Your task to perform on an android device: Open Google Maps Image 0: 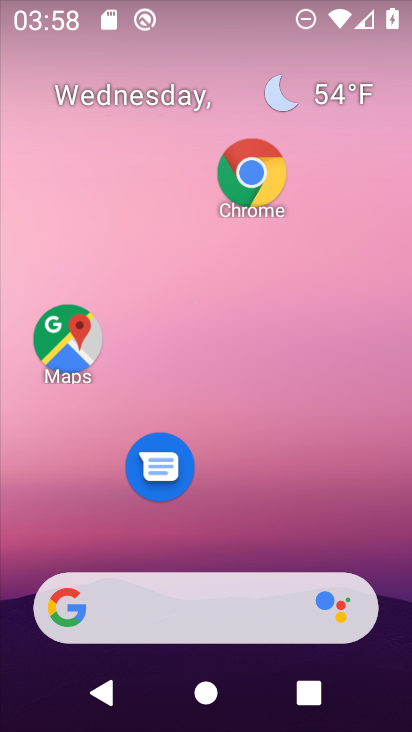
Step 0: click (52, 327)
Your task to perform on an android device: Open Google Maps Image 1: 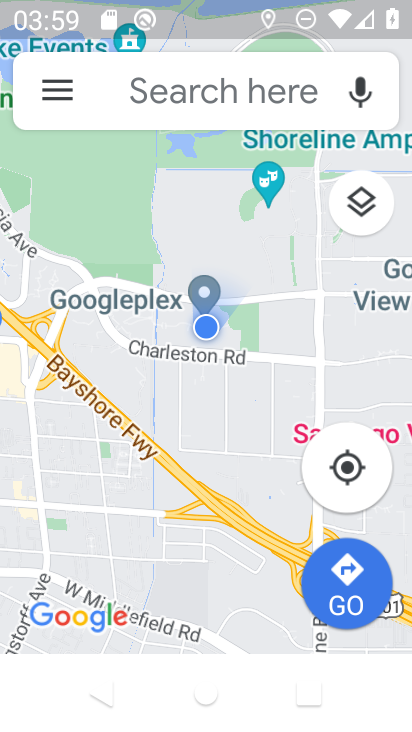
Step 1: task complete